Your task to perform on an android device: Open calendar and show me the second week of next month Image 0: 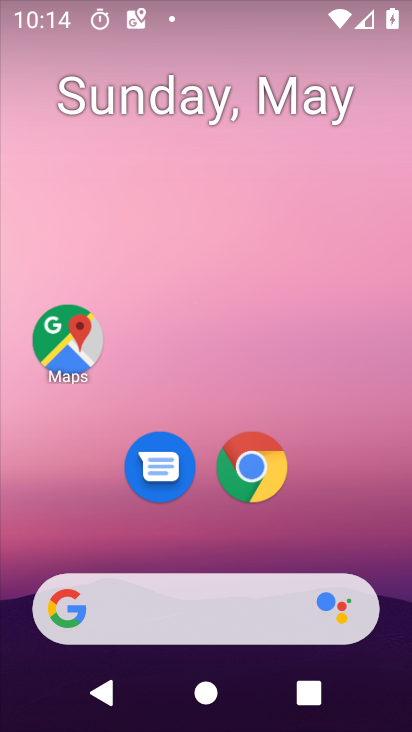
Step 0: drag from (212, 548) to (212, 175)
Your task to perform on an android device: Open calendar and show me the second week of next month Image 1: 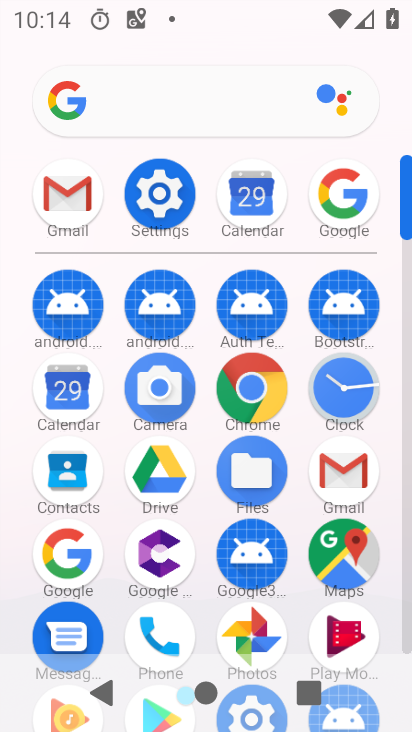
Step 1: click (247, 180)
Your task to perform on an android device: Open calendar and show me the second week of next month Image 2: 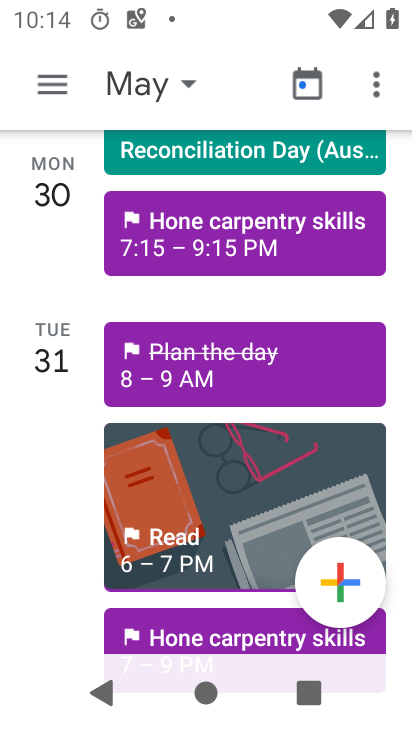
Step 2: click (165, 77)
Your task to perform on an android device: Open calendar and show me the second week of next month Image 3: 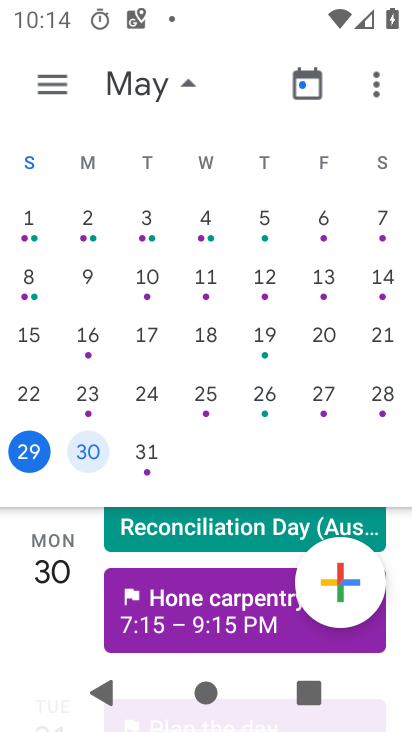
Step 3: drag from (365, 296) to (0, 344)
Your task to perform on an android device: Open calendar and show me the second week of next month Image 4: 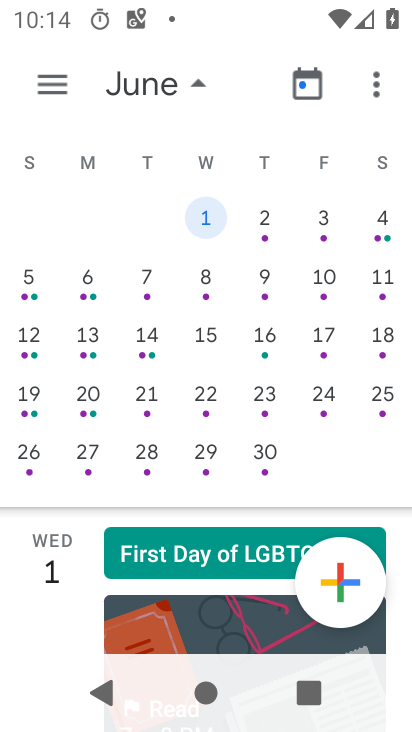
Step 4: click (34, 286)
Your task to perform on an android device: Open calendar and show me the second week of next month Image 5: 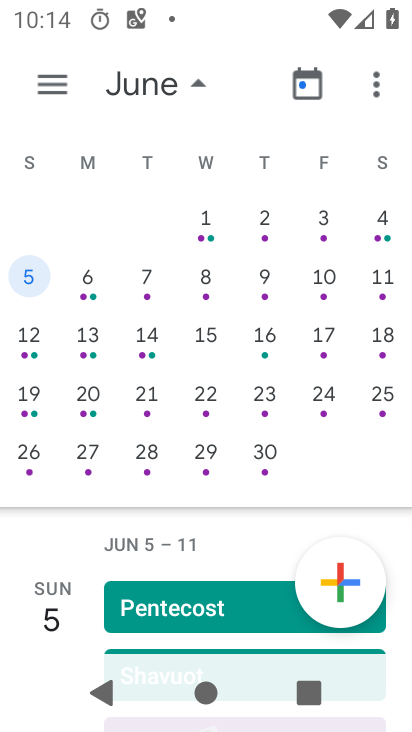
Step 5: click (35, 269)
Your task to perform on an android device: Open calendar and show me the second week of next month Image 6: 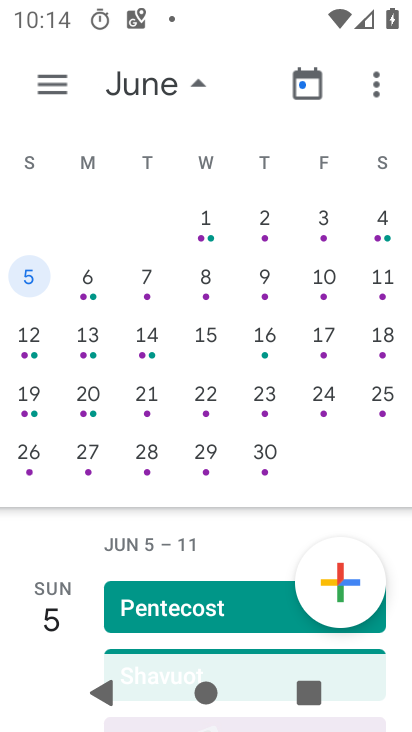
Step 6: task complete